Your task to perform on an android device: install app "Google Play Games" Image 0: 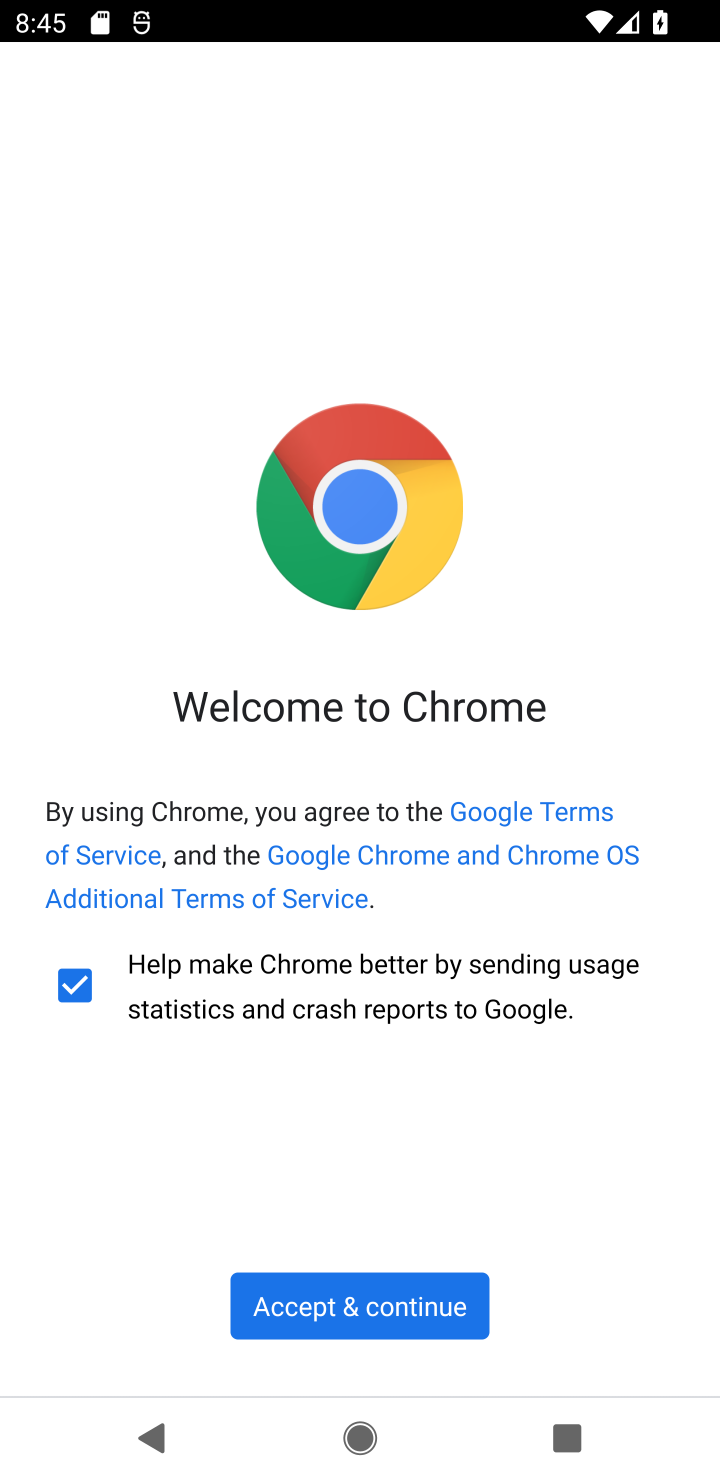
Step 0: press home button
Your task to perform on an android device: install app "Google Play Games" Image 1: 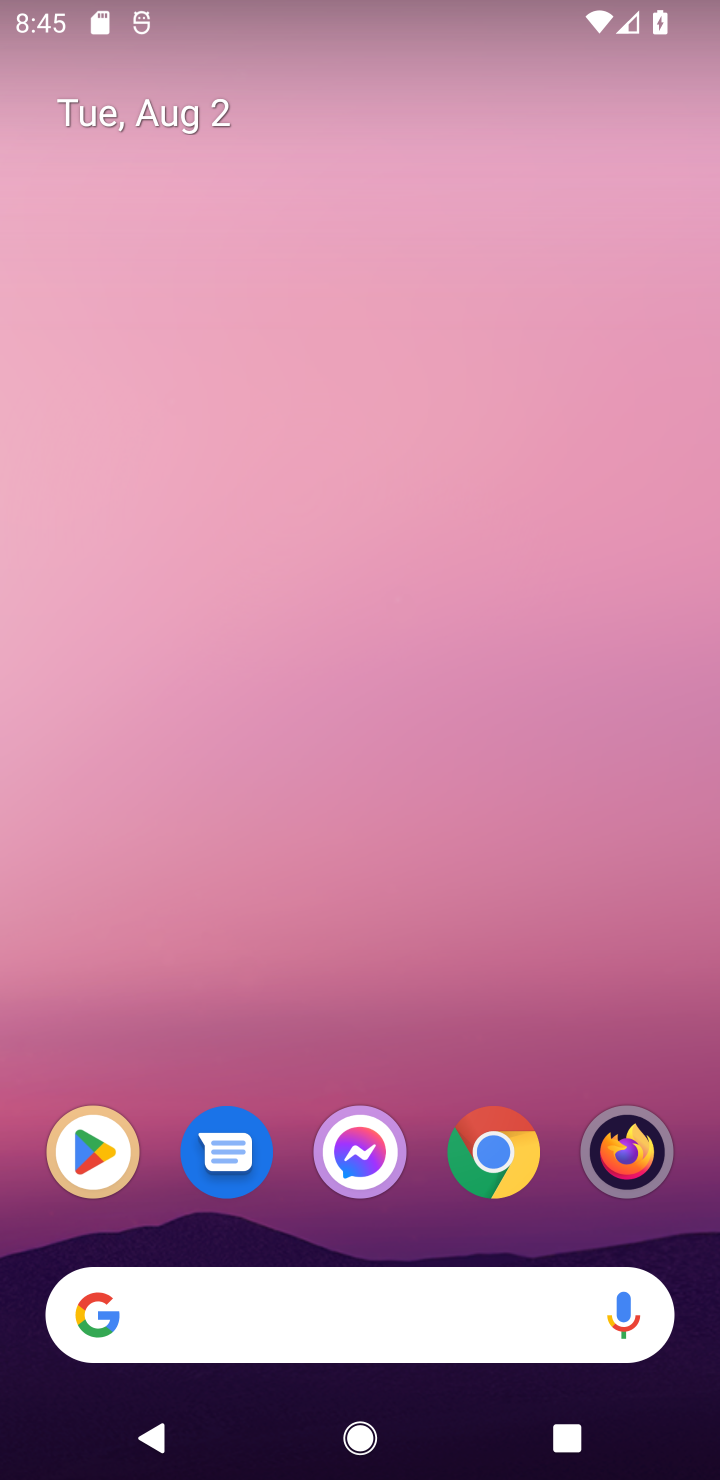
Step 1: click (90, 1138)
Your task to perform on an android device: install app "Google Play Games" Image 2: 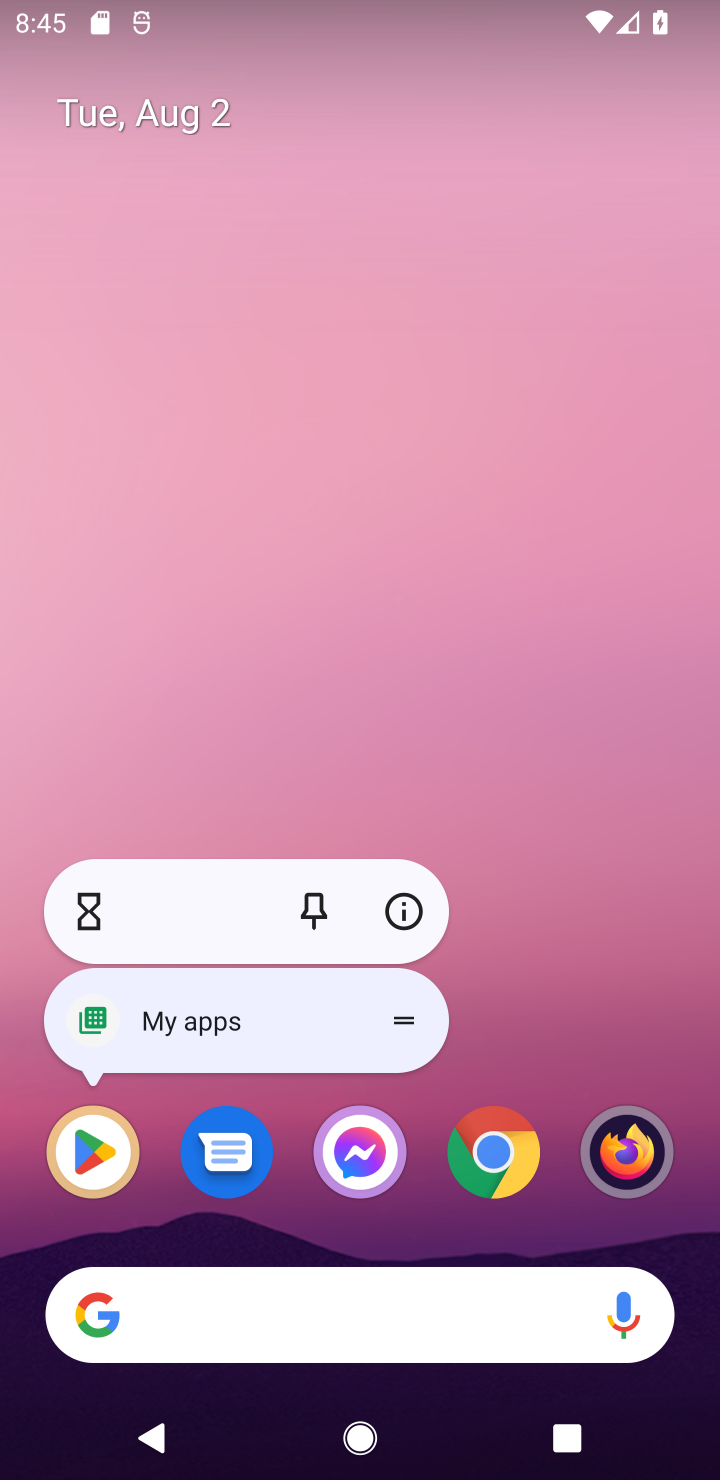
Step 2: click (95, 1170)
Your task to perform on an android device: install app "Google Play Games" Image 3: 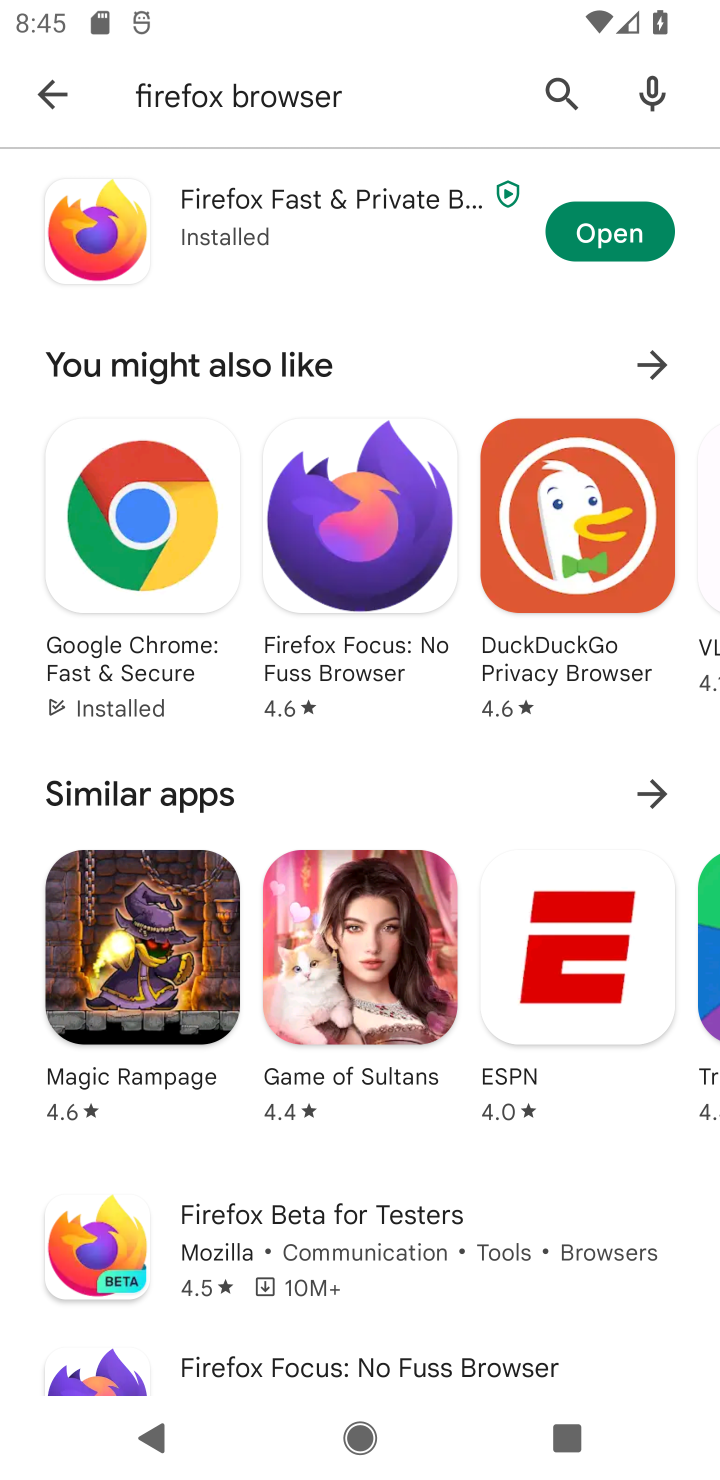
Step 3: click (48, 87)
Your task to perform on an android device: install app "Google Play Games" Image 4: 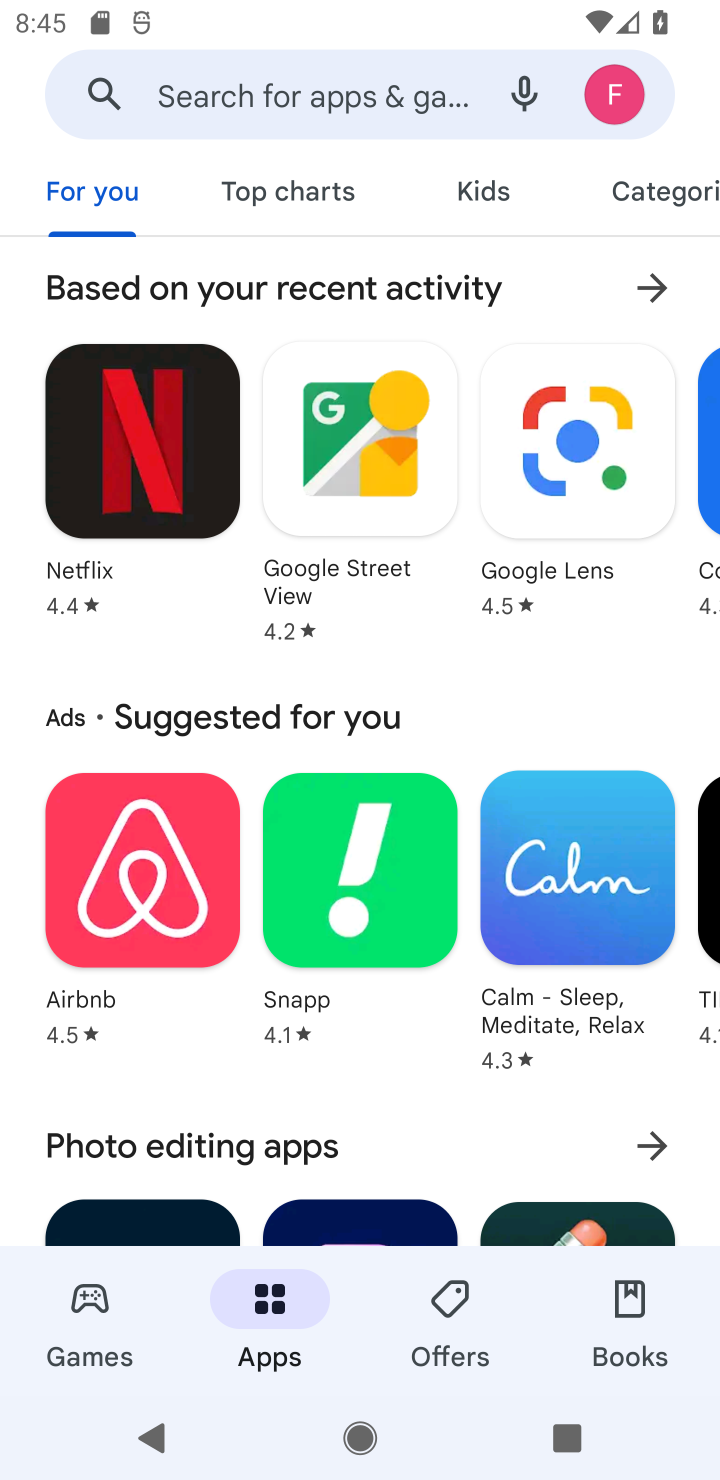
Step 4: click (276, 94)
Your task to perform on an android device: install app "Google Play Games" Image 5: 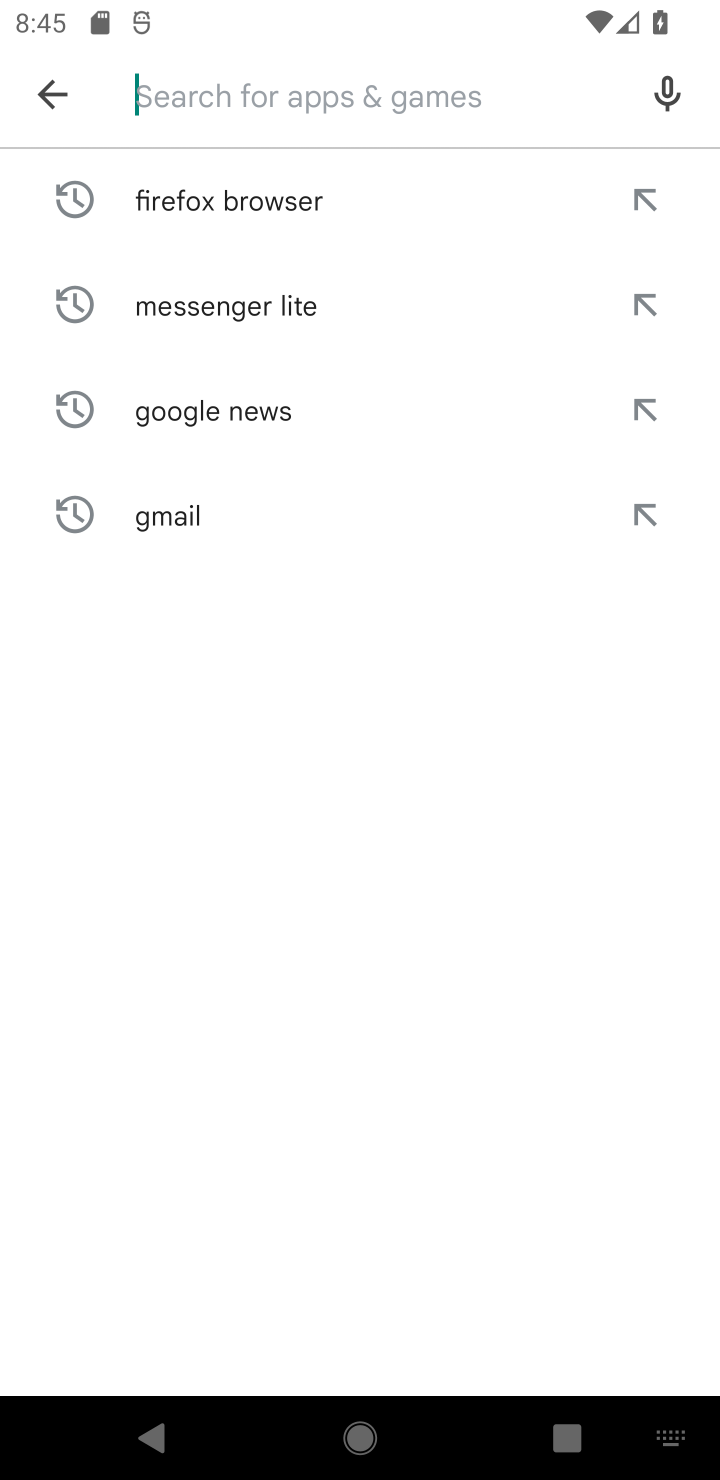
Step 5: type "Google Play Games"
Your task to perform on an android device: install app "Google Play Games" Image 6: 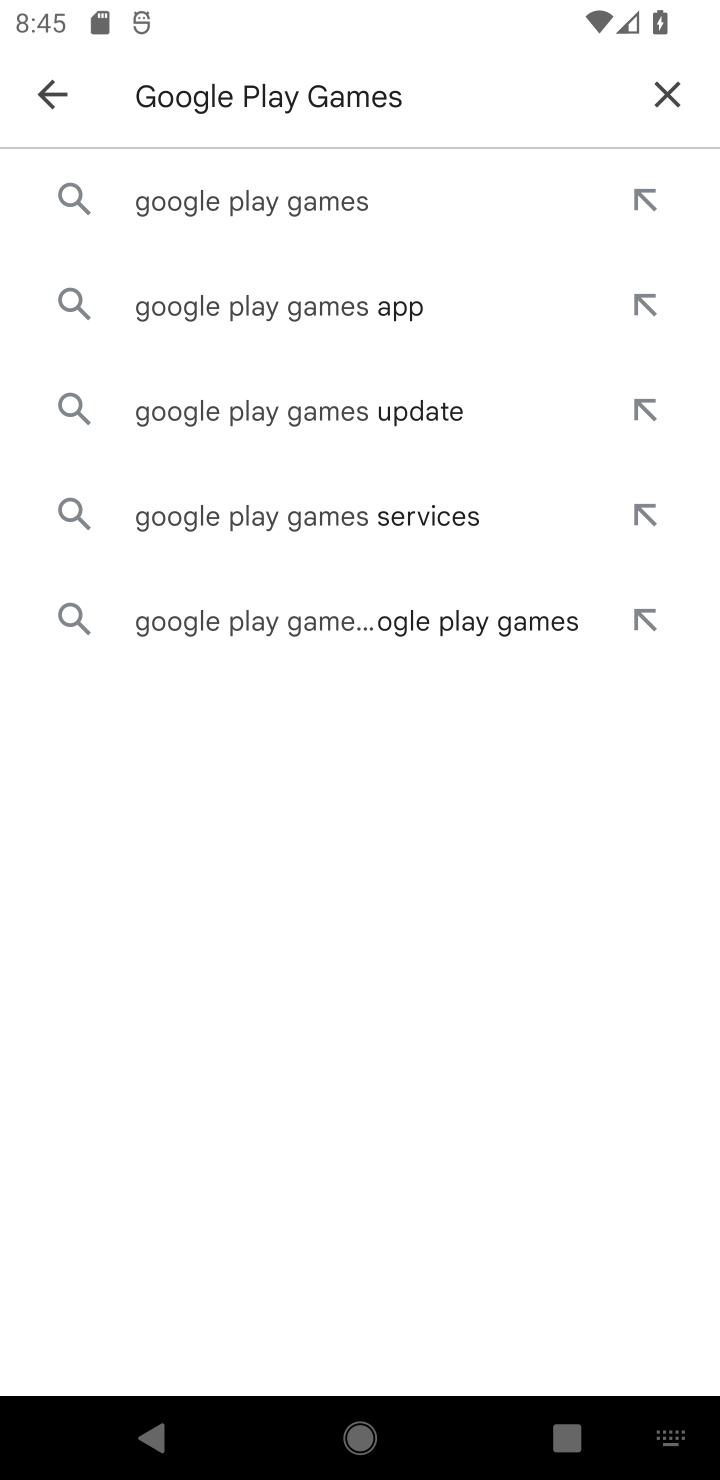
Step 6: click (283, 195)
Your task to perform on an android device: install app "Google Play Games" Image 7: 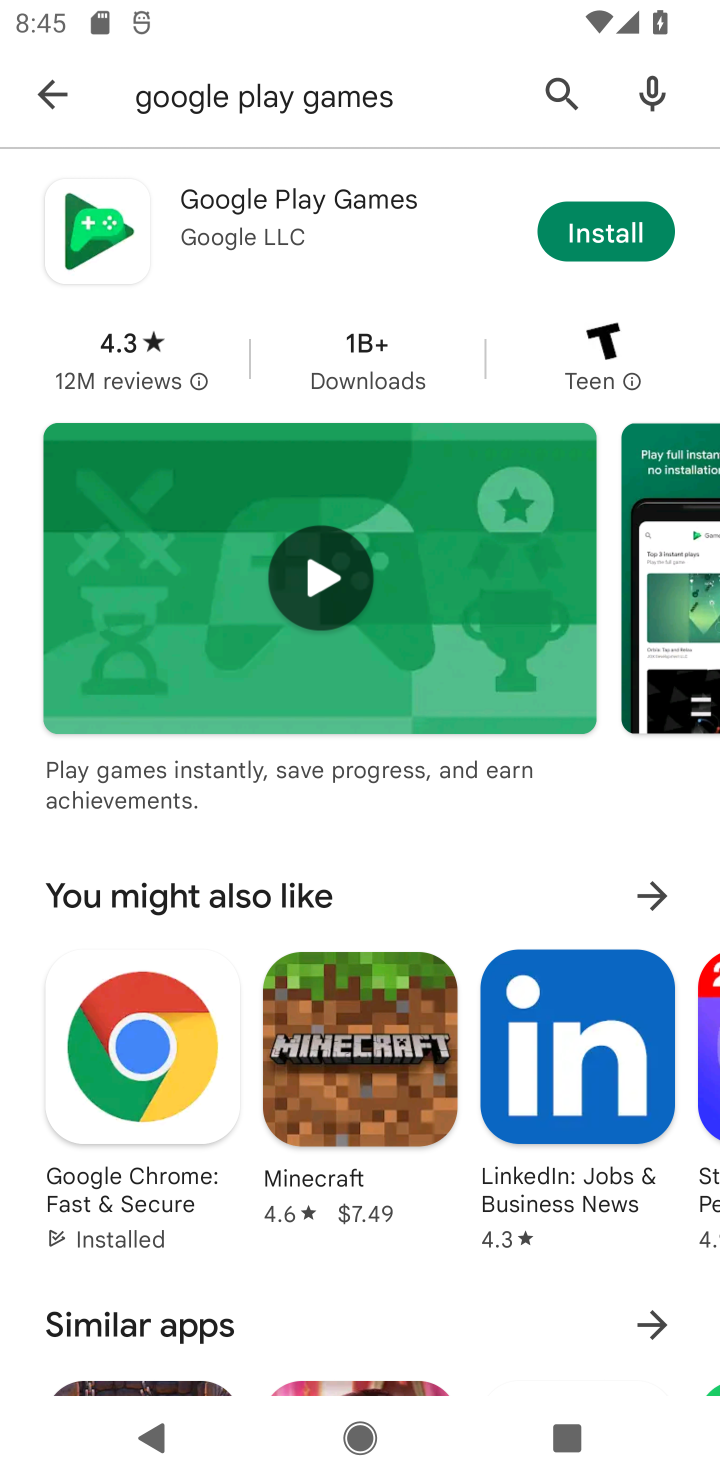
Step 7: click (576, 228)
Your task to perform on an android device: install app "Google Play Games" Image 8: 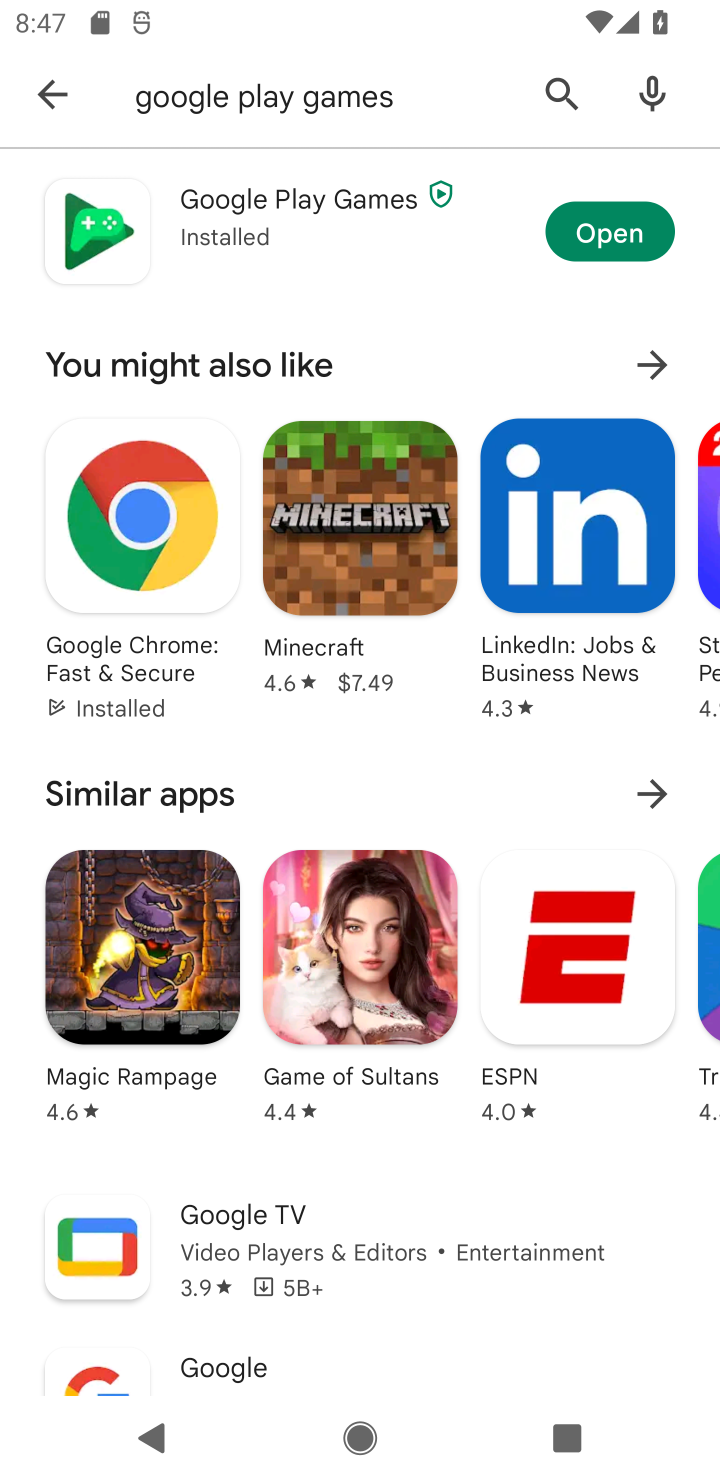
Step 8: click (598, 249)
Your task to perform on an android device: install app "Google Play Games" Image 9: 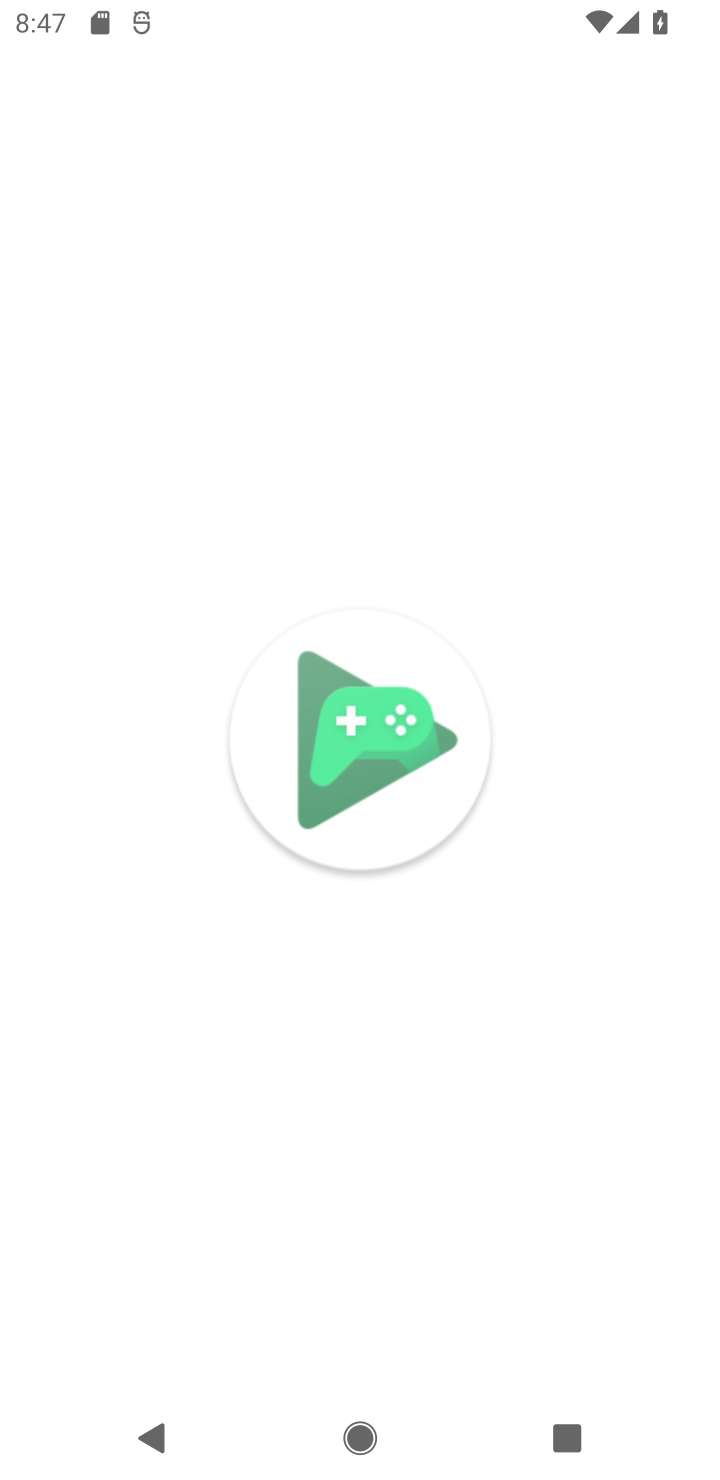
Step 9: task complete